Your task to perform on an android device: What's the weather going to be this weekend? Image 0: 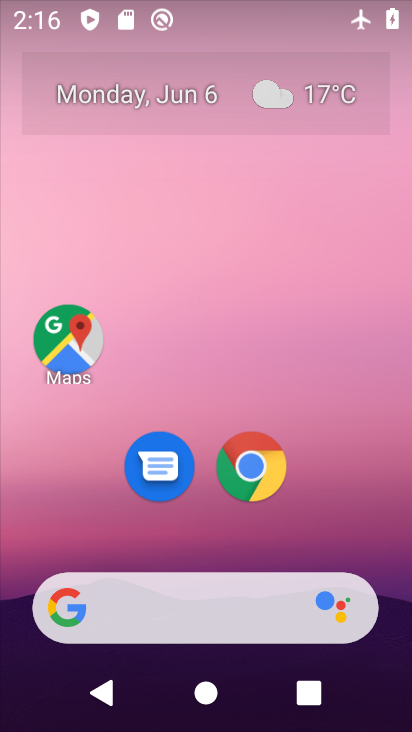
Step 0: drag from (289, 509) to (283, 191)
Your task to perform on an android device: What's the weather going to be this weekend? Image 1: 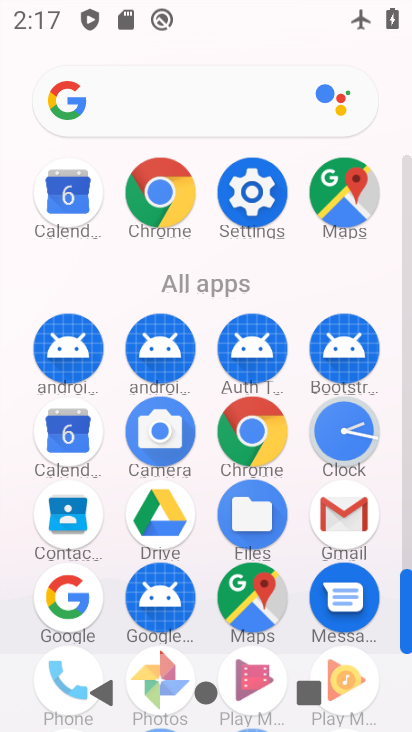
Step 1: task complete